Your task to perform on an android device: toggle wifi Image 0: 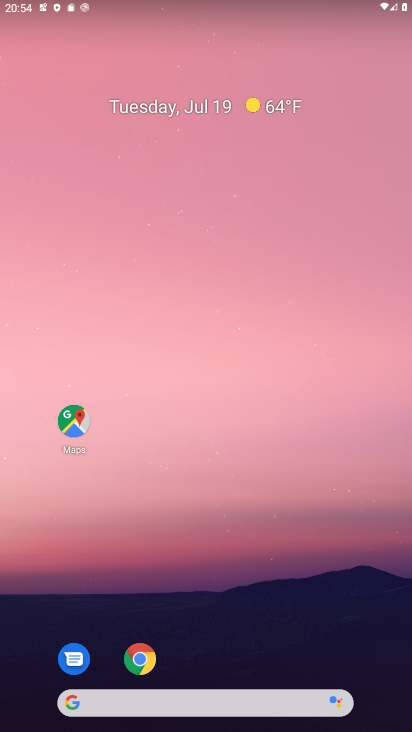
Step 0: drag from (173, 8) to (184, 568)
Your task to perform on an android device: toggle wifi Image 1: 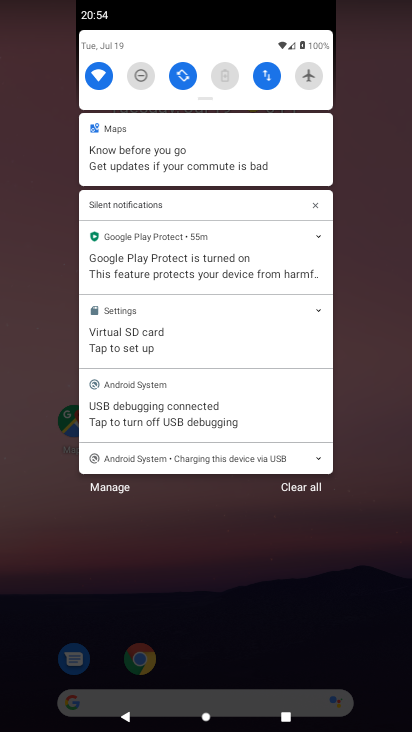
Step 1: click (85, 73)
Your task to perform on an android device: toggle wifi Image 2: 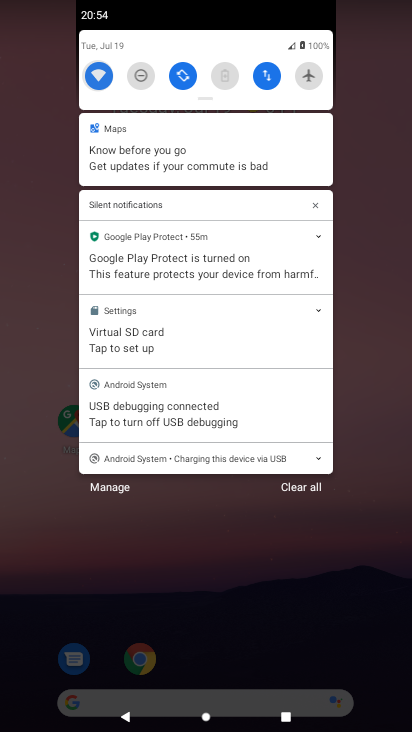
Step 2: click (85, 73)
Your task to perform on an android device: toggle wifi Image 3: 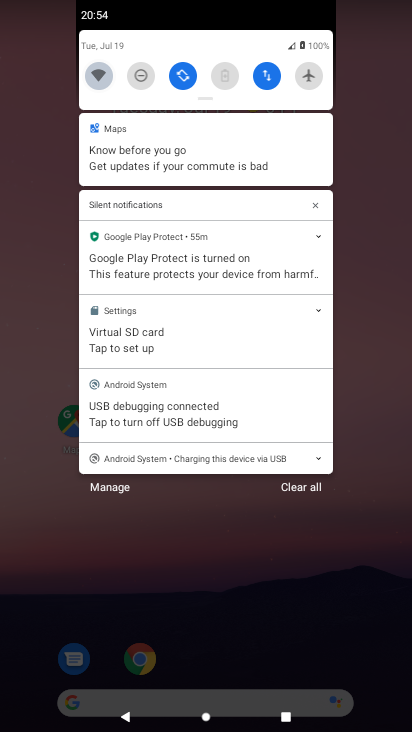
Step 3: click (85, 73)
Your task to perform on an android device: toggle wifi Image 4: 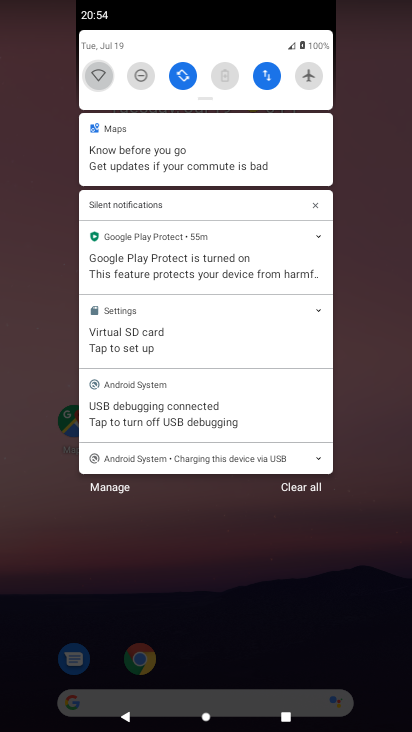
Step 4: click (85, 73)
Your task to perform on an android device: toggle wifi Image 5: 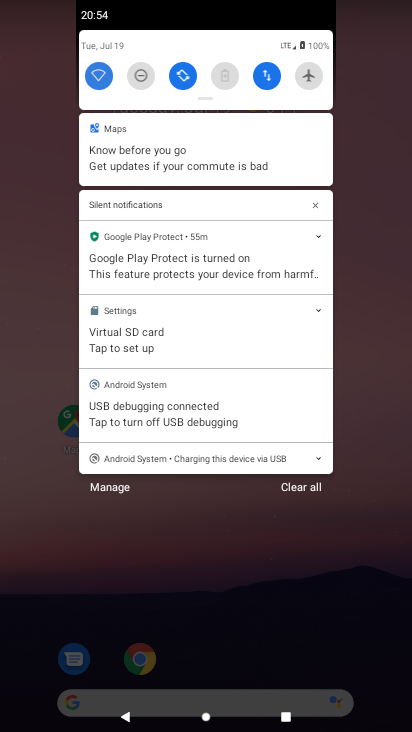
Step 5: click (85, 73)
Your task to perform on an android device: toggle wifi Image 6: 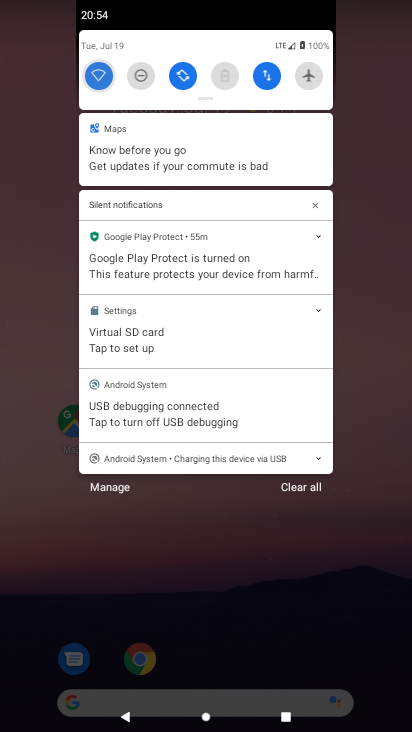
Step 6: click (85, 73)
Your task to perform on an android device: toggle wifi Image 7: 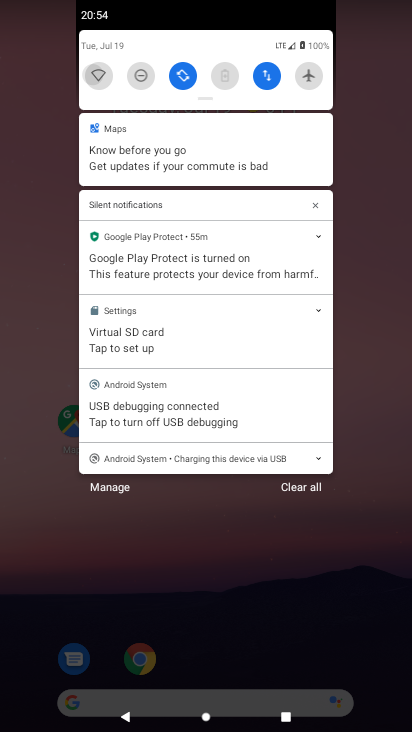
Step 7: click (85, 73)
Your task to perform on an android device: toggle wifi Image 8: 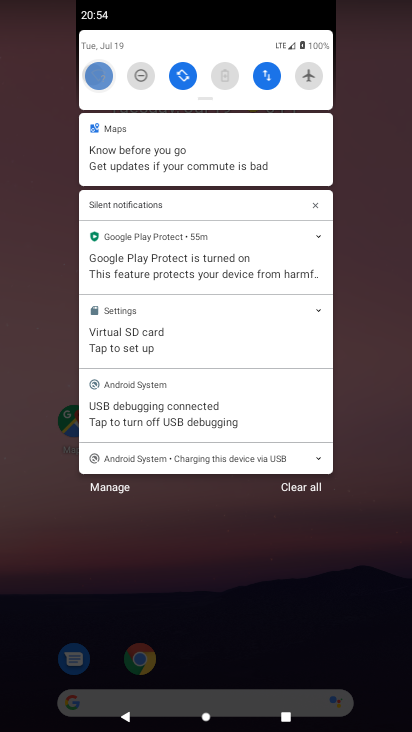
Step 8: click (85, 73)
Your task to perform on an android device: toggle wifi Image 9: 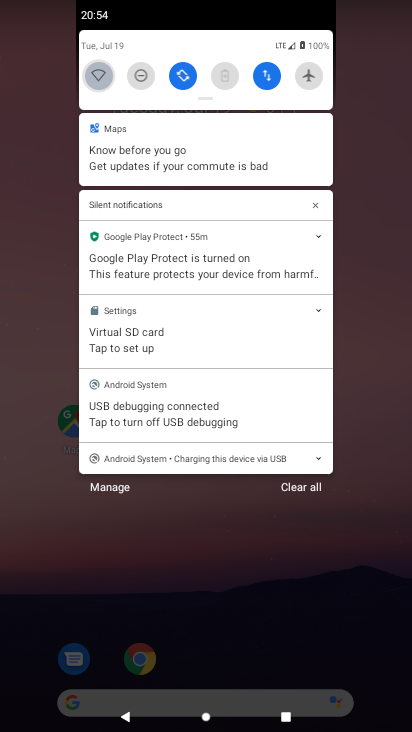
Step 9: click (85, 73)
Your task to perform on an android device: toggle wifi Image 10: 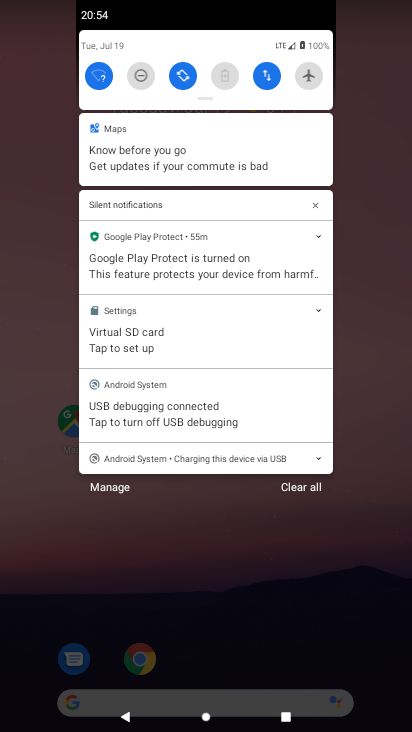
Step 10: task complete